Your task to perform on an android device: Show me recent news Image 0: 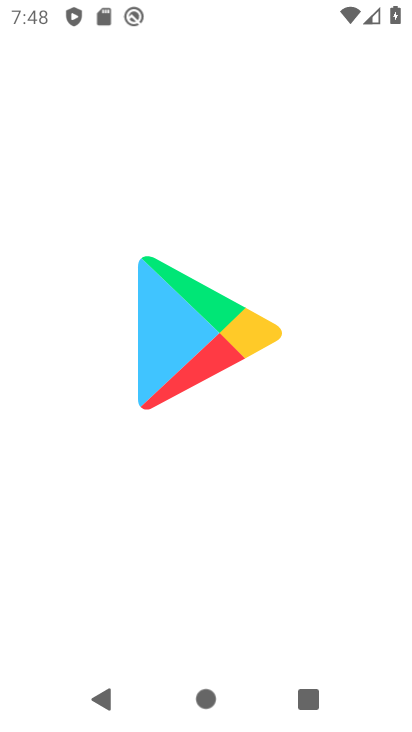
Step 0: click (183, 598)
Your task to perform on an android device: Show me recent news Image 1: 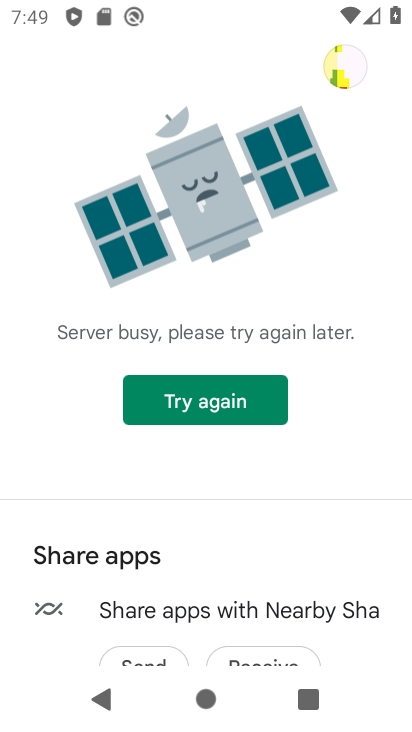
Step 1: task complete